Your task to perform on an android device: Open my contact list Image 0: 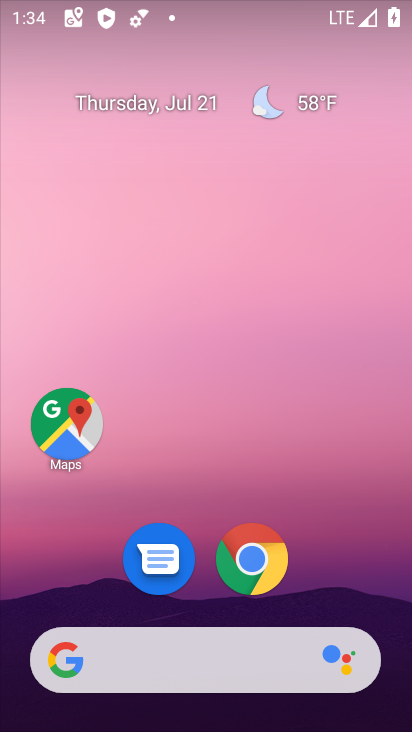
Step 0: drag from (377, 588) to (362, 128)
Your task to perform on an android device: Open my contact list Image 1: 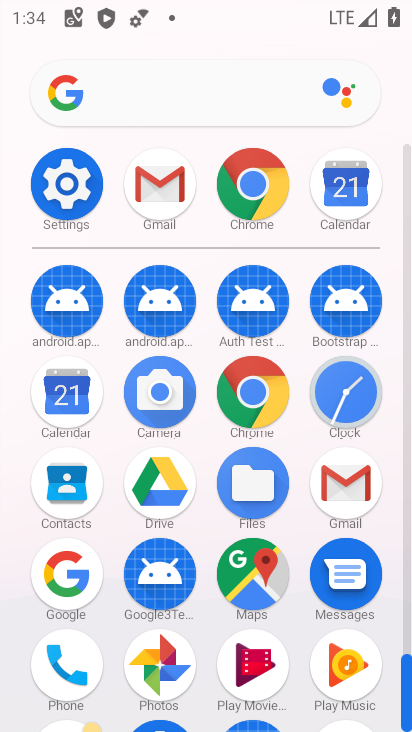
Step 1: click (77, 489)
Your task to perform on an android device: Open my contact list Image 2: 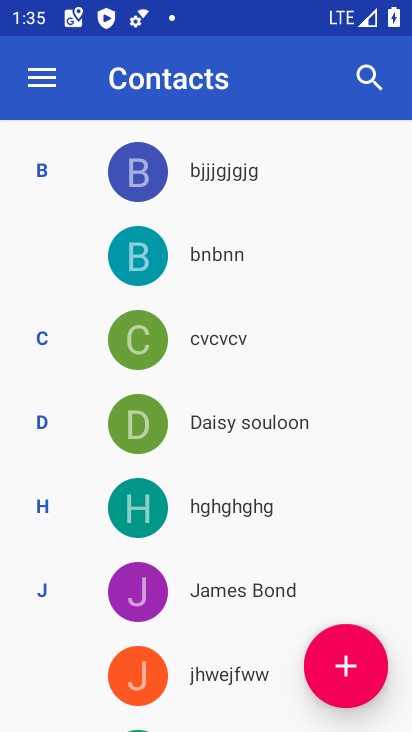
Step 2: task complete